Your task to perform on an android device: open app "Google Play services" (install if not already installed) Image 0: 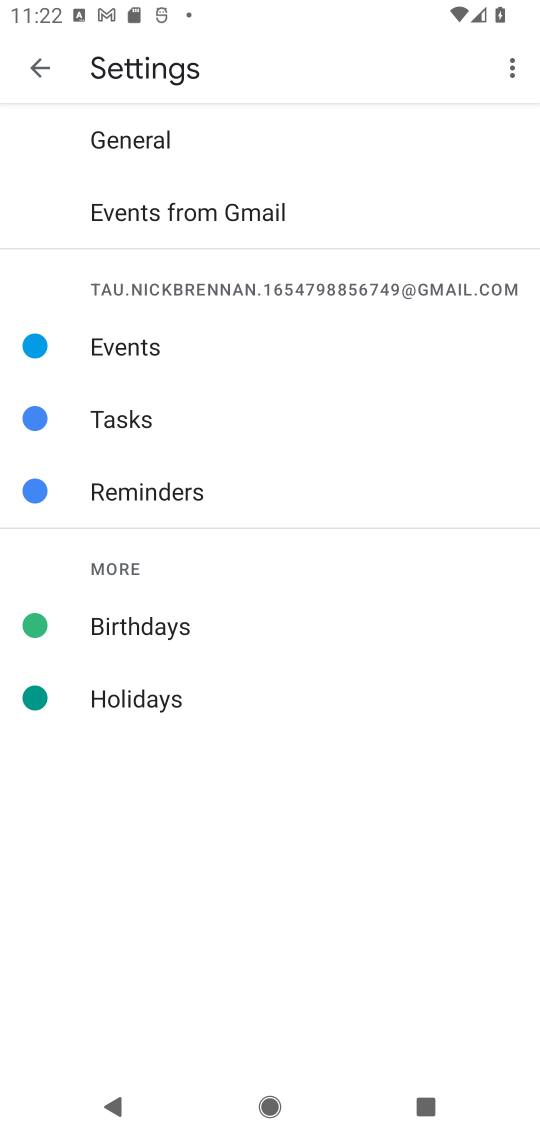
Step 0: press home button
Your task to perform on an android device: open app "Google Play services" (install if not already installed) Image 1: 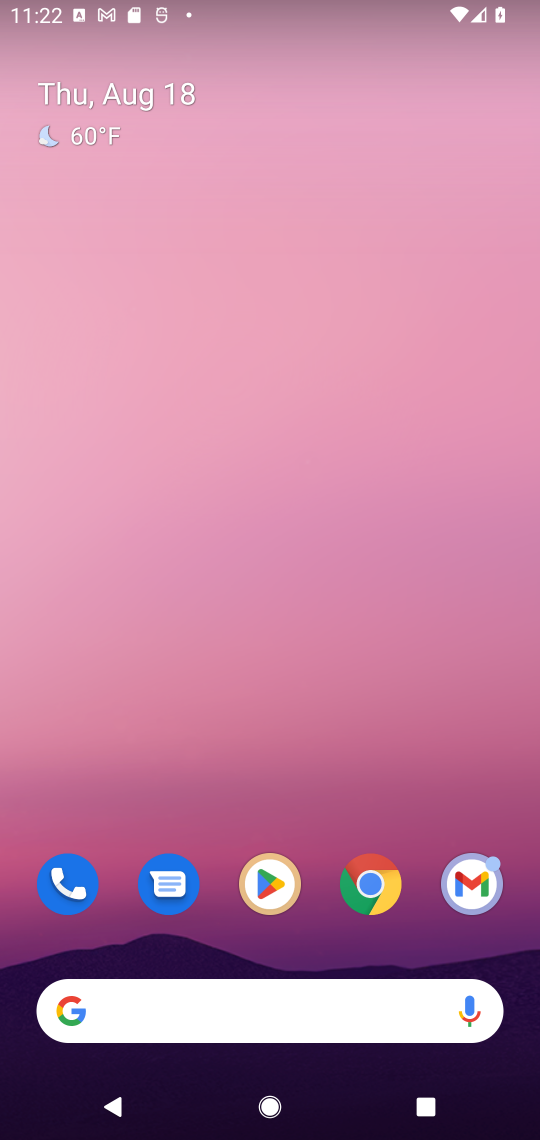
Step 1: drag from (275, 1020) to (132, 177)
Your task to perform on an android device: open app "Google Play services" (install if not already installed) Image 2: 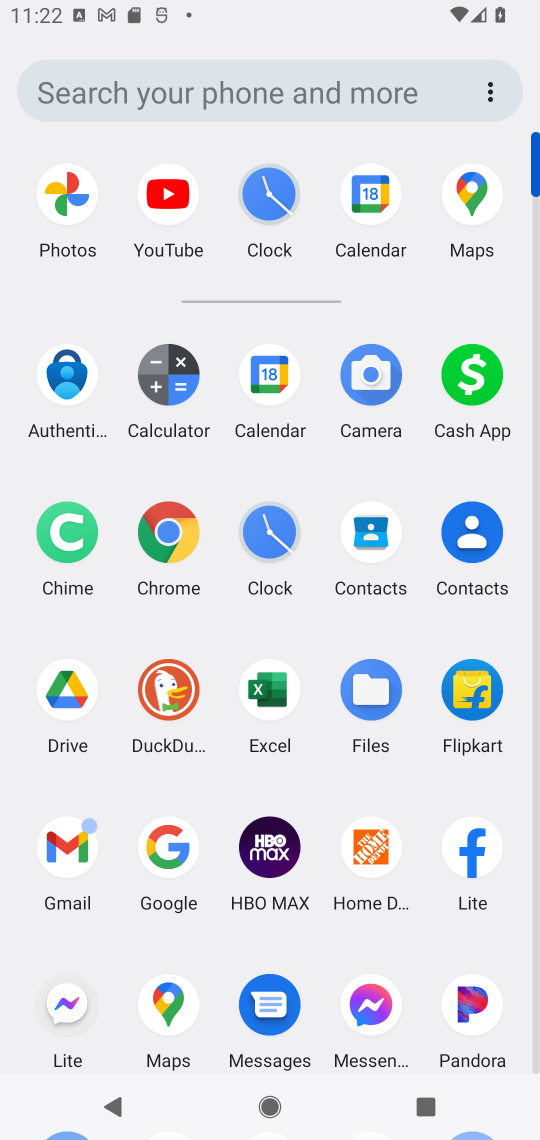
Step 2: drag from (310, 959) to (312, 462)
Your task to perform on an android device: open app "Google Play services" (install if not already installed) Image 3: 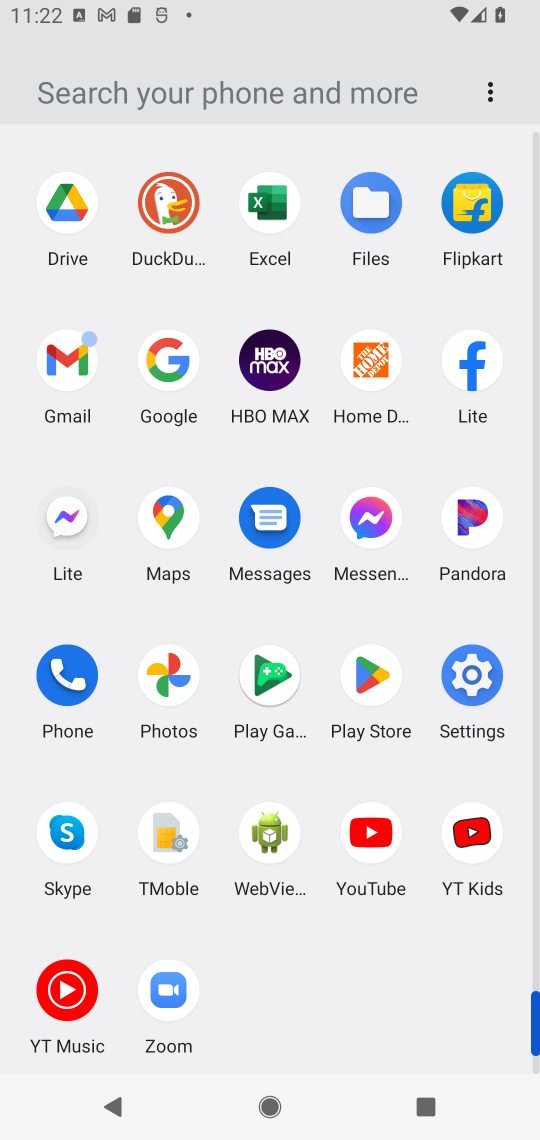
Step 3: click (375, 678)
Your task to perform on an android device: open app "Google Play services" (install if not already installed) Image 4: 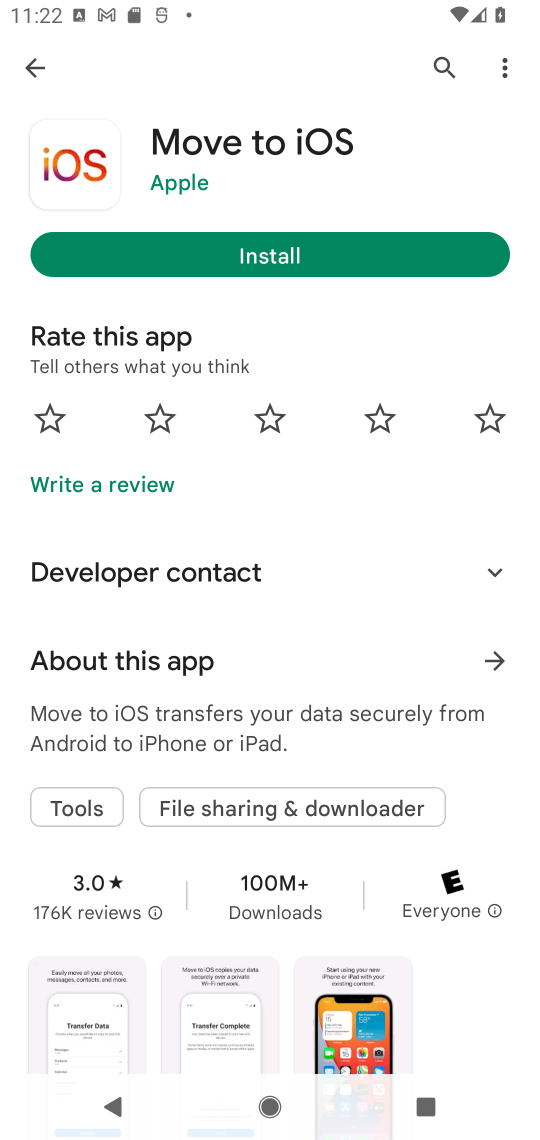
Step 4: press back button
Your task to perform on an android device: open app "Google Play services" (install if not already installed) Image 5: 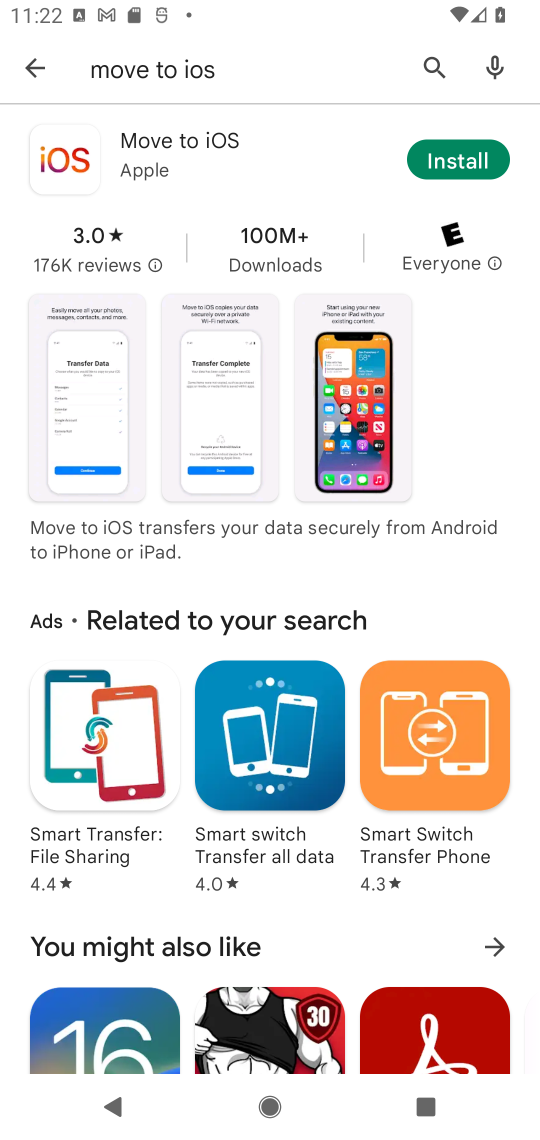
Step 5: press back button
Your task to perform on an android device: open app "Google Play services" (install if not already installed) Image 6: 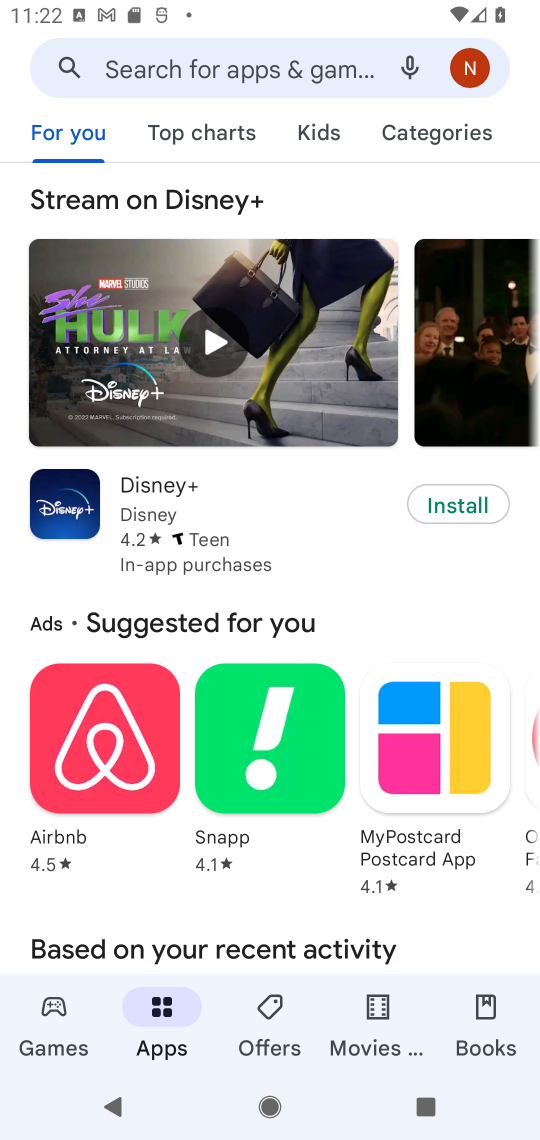
Step 6: click (277, 67)
Your task to perform on an android device: open app "Google Play services" (install if not already installed) Image 7: 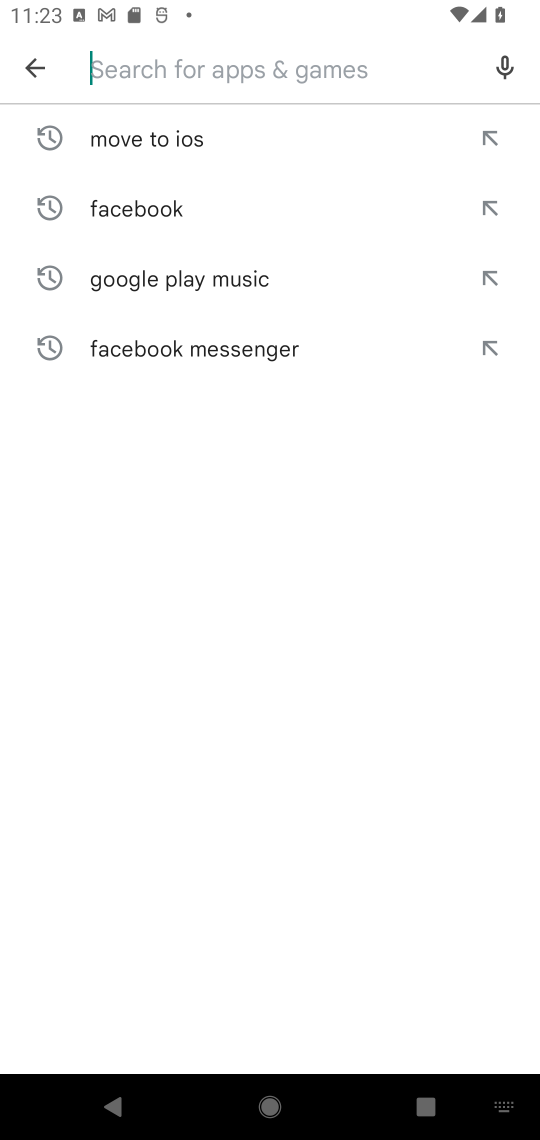
Step 7: type "Google Play service"
Your task to perform on an android device: open app "Google Play services" (install if not already installed) Image 8: 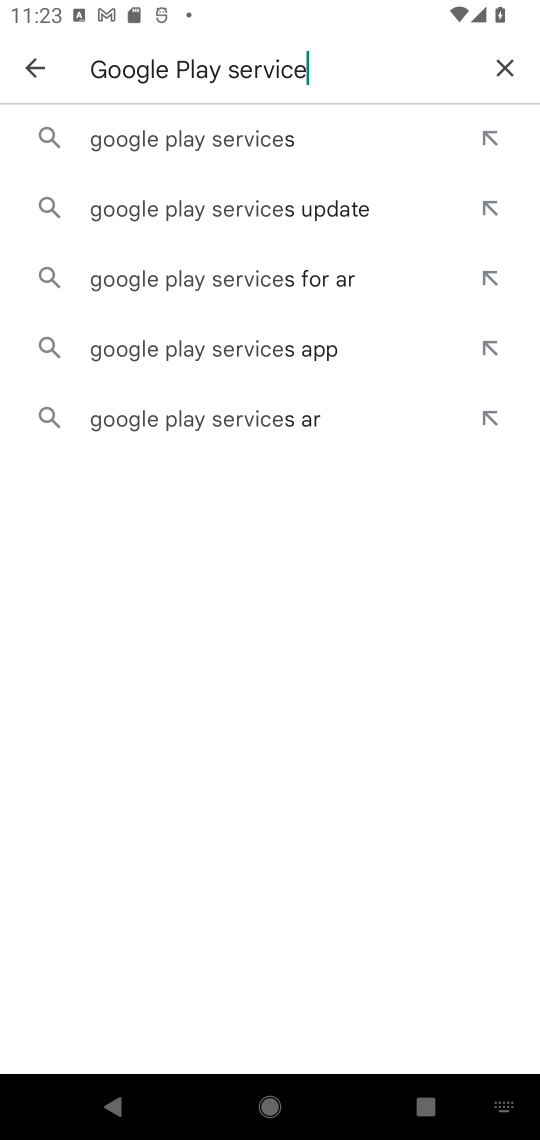
Step 8: click (266, 145)
Your task to perform on an android device: open app "Google Play services" (install if not already installed) Image 9: 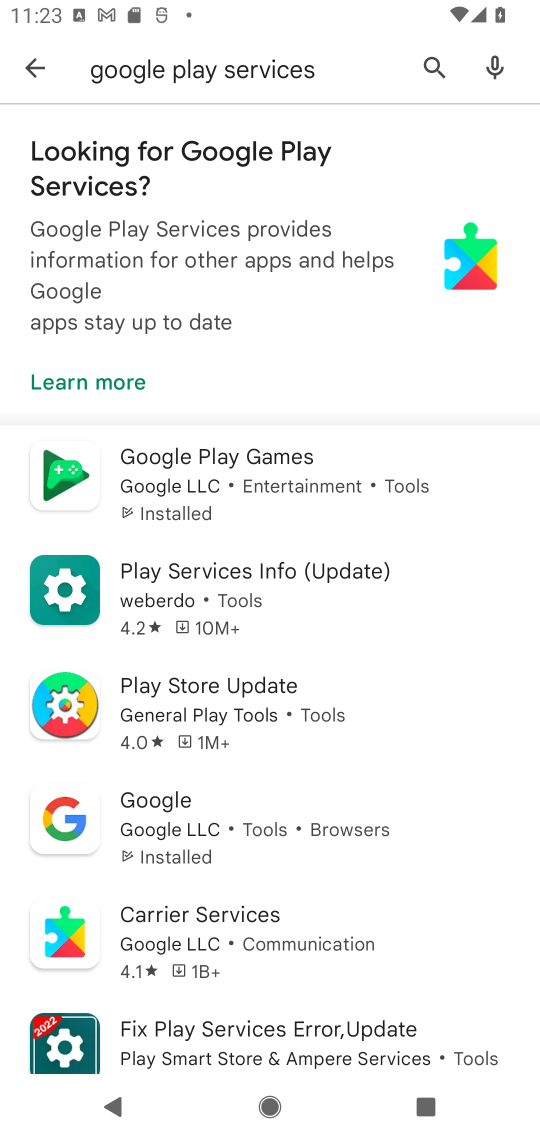
Step 9: click (228, 157)
Your task to perform on an android device: open app "Google Play services" (install if not already installed) Image 10: 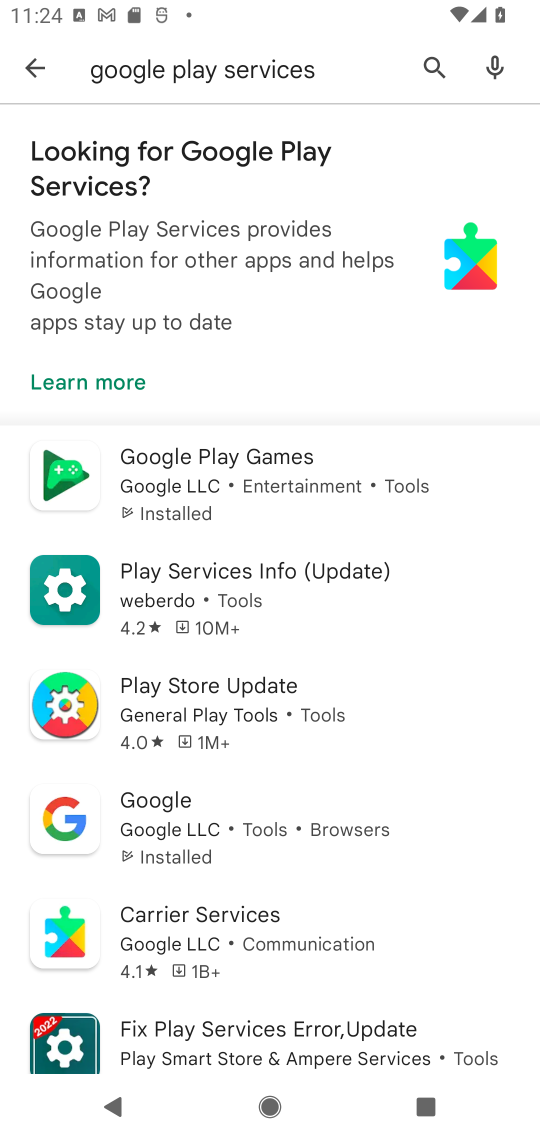
Step 10: click (228, 157)
Your task to perform on an android device: open app "Google Play services" (install if not already installed) Image 11: 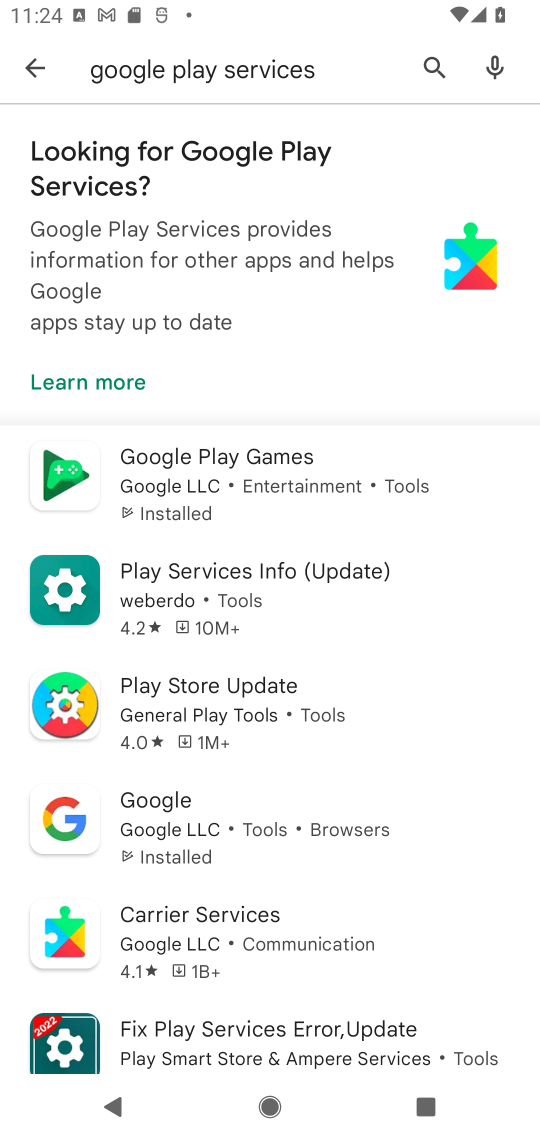
Step 11: drag from (233, 931) to (319, 763)
Your task to perform on an android device: open app "Google Play services" (install if not already installed) Image 12: 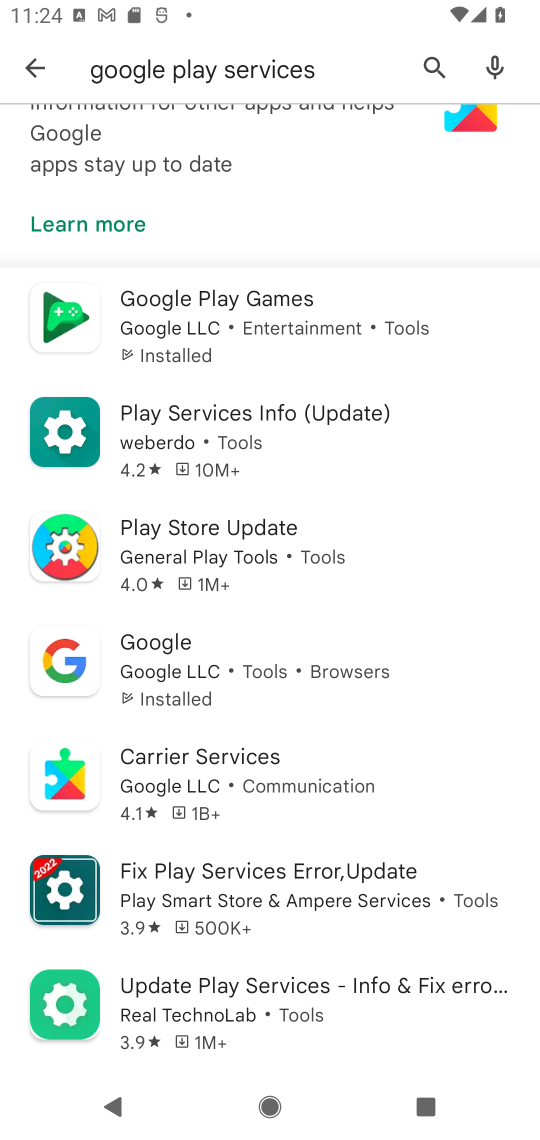
Step 12: drag from (290, 915) to (430, 701)
Your task to perform on an android device: open app "Google Play services" (install if not already installed) Image 13: 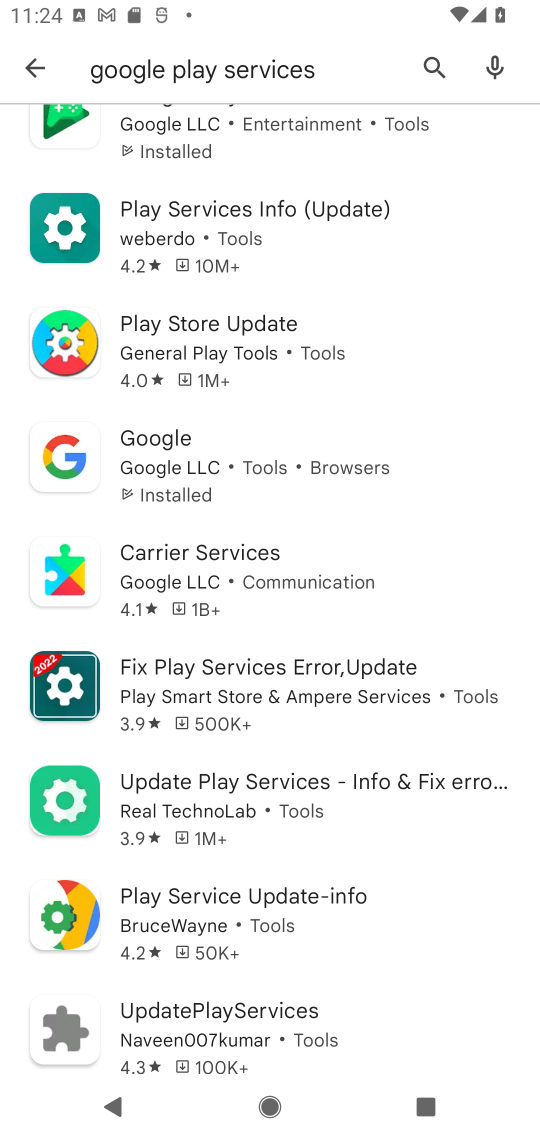
Step 13: drag from (319, 937) to (424, 744)
Your task to perform on an android device: open app "Google Play services" (install if not already installed) Image 14: 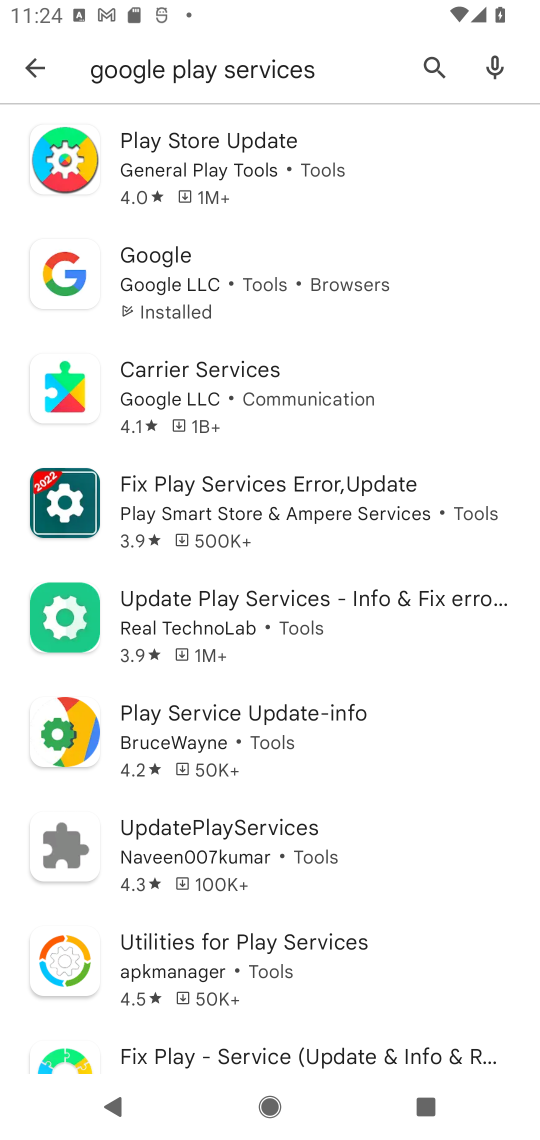
Step 14: drag from (332, 947) to (436, 764)
Your task to perform on an android device: open app "Google Play services" (install if not already installed) Image 15: 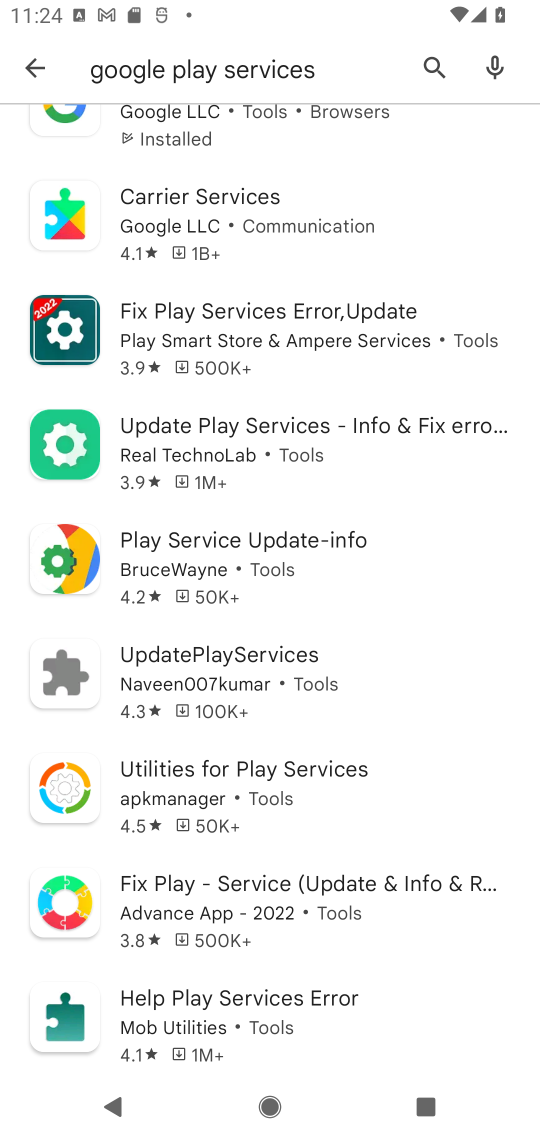
Step 15: drag from (329, 951) to (413, 696)
Your task to perform on an android device: open app "Google Play services" (install if not already installed) Image 16: 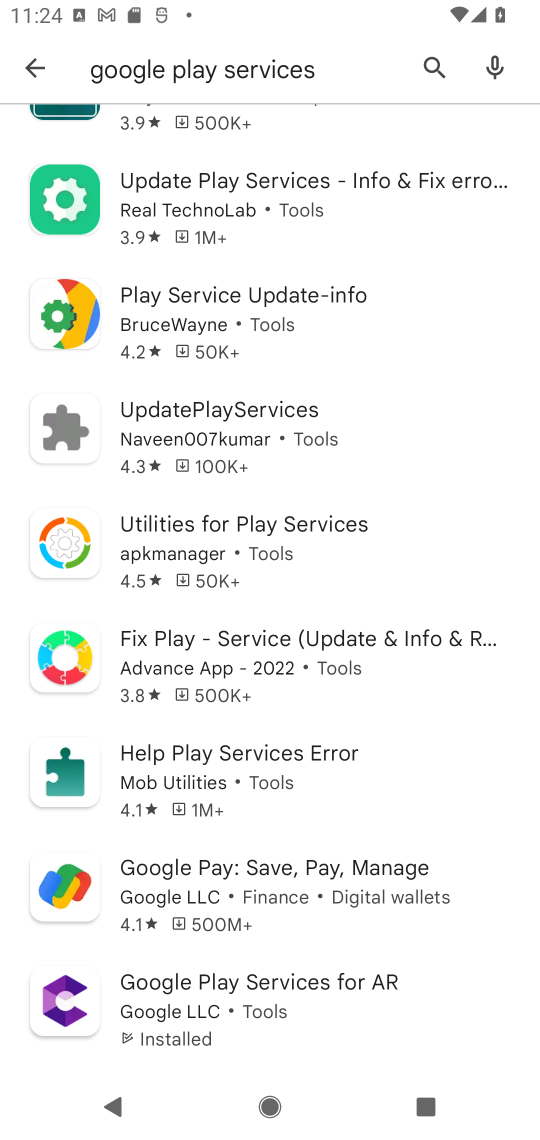
Step 16: drag from (281, 937) to (377, 780)
Your task to perform on an android device: open app "Google Play services" (install if not already installed) Image 17: 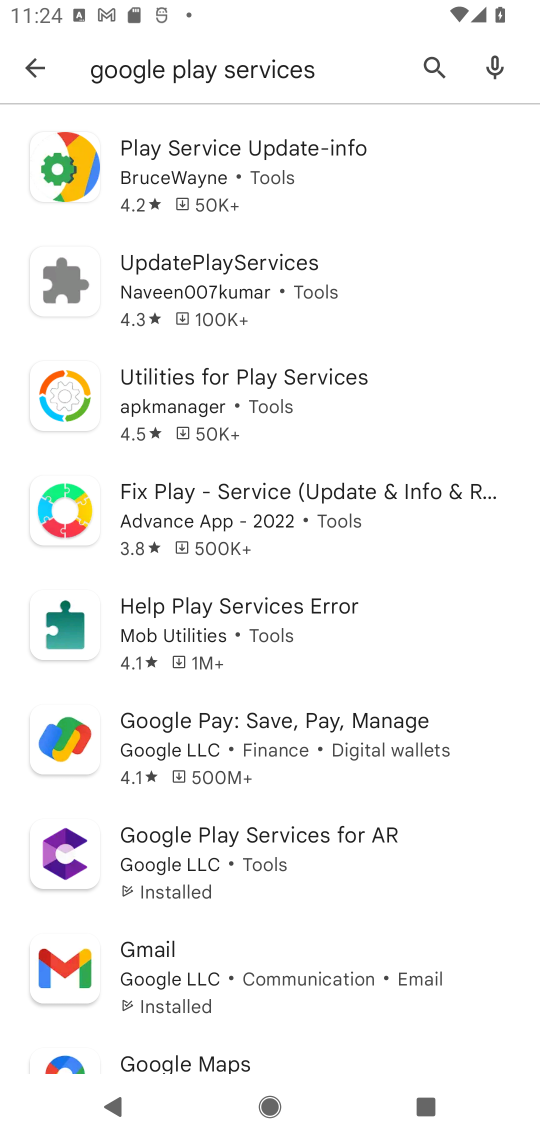
Step 17: click (318, 829)
Your task to perform on an android device: open app "Google Play services" (install if not already installed) Image 18: 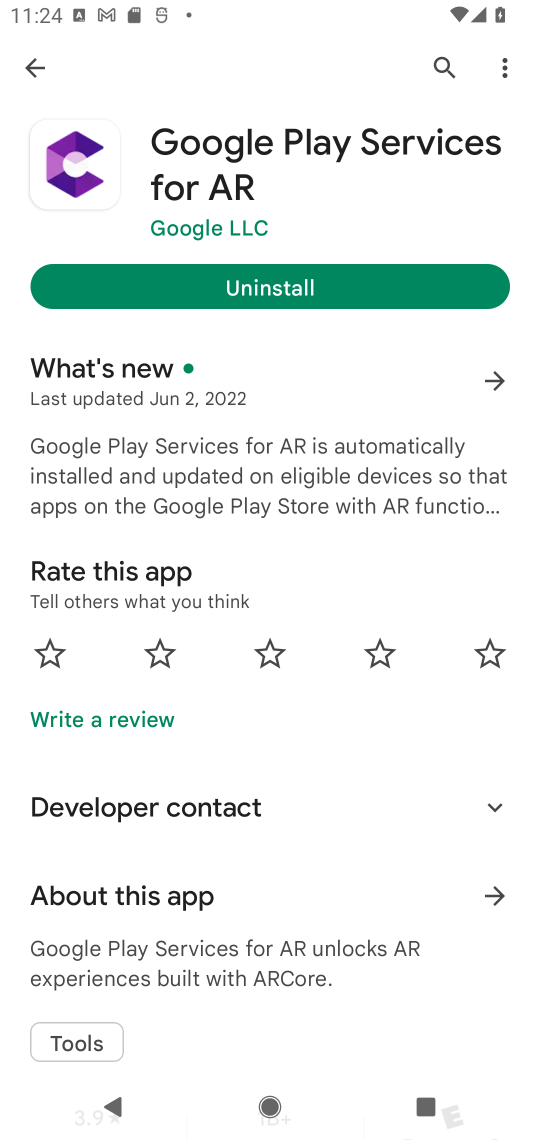
Step 18: task complete